Your task to perform on an android device: Search for seafood restaurants on Google Maps Image 0: 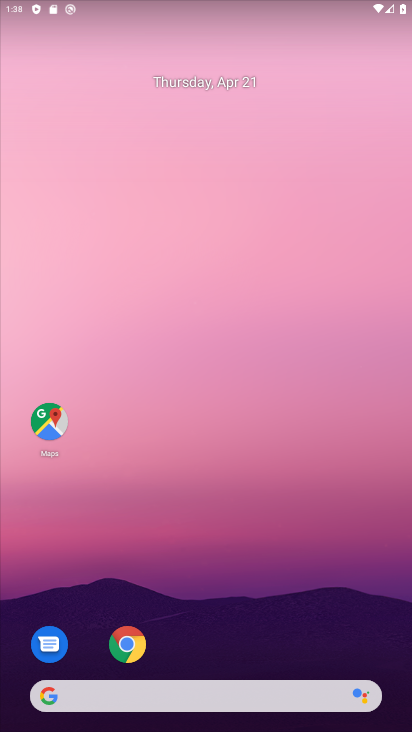
Step 0: click (50, 419)
Your task to perform on an android device: Search for seafood restaurants on Google Maps Image 1: 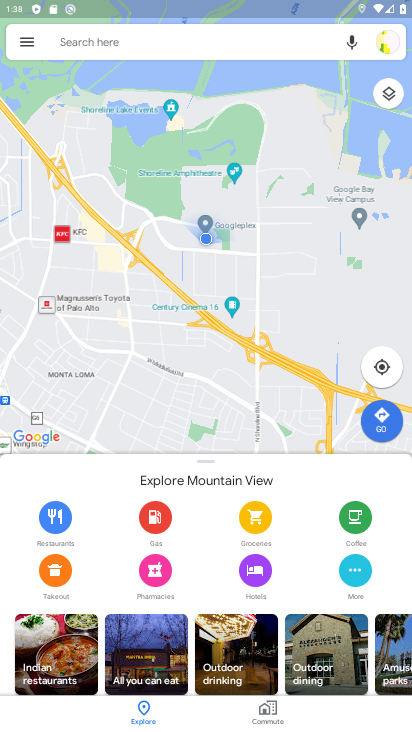
Step 1: click (131, 39)
Your task to perform on an android device: Search for seafood restaurants on Google Maps Image 2: 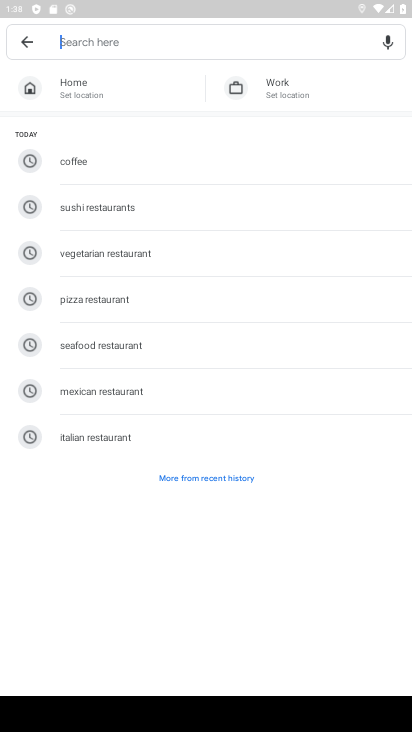
Step 2: click (159, 351)
Your task to perform on an android device: Search for seafood restaurants on Google Maps Image 3: 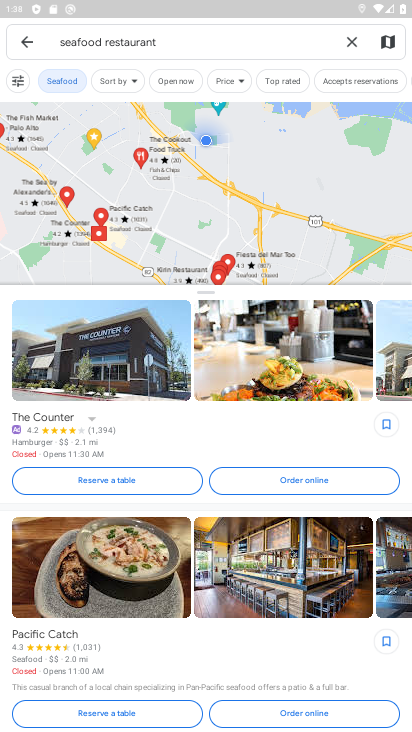
Step 3: task complete